Your task to perform on an android device: check battery use Image 0: 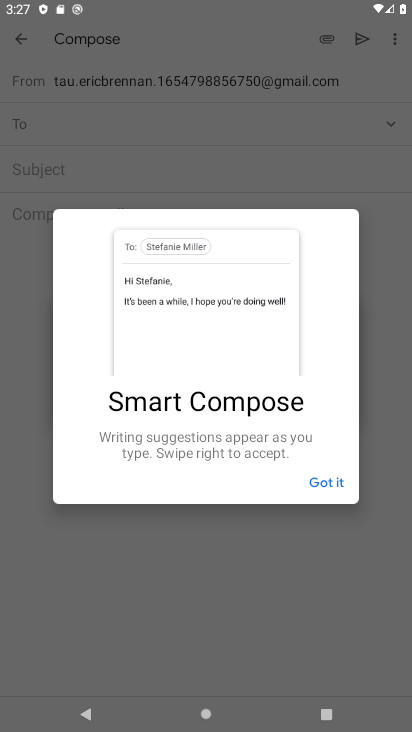
Step 0: press home button
Your task to perform on an android device: check battery use Image 1: 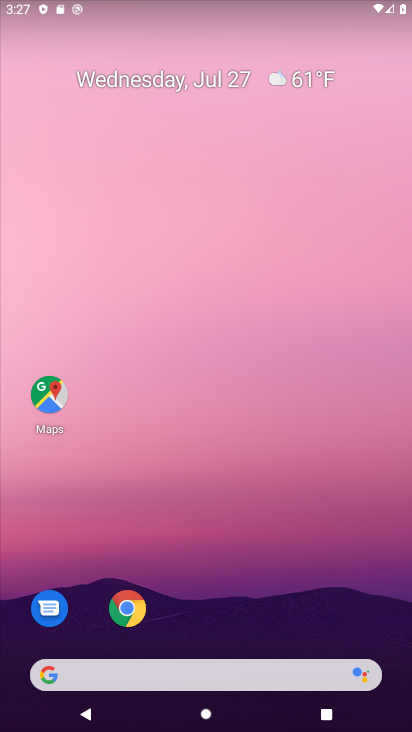
Step 1: drag from (234, 720) to (232, 197)
Your task to perform on an android device: check battery use Image 2: 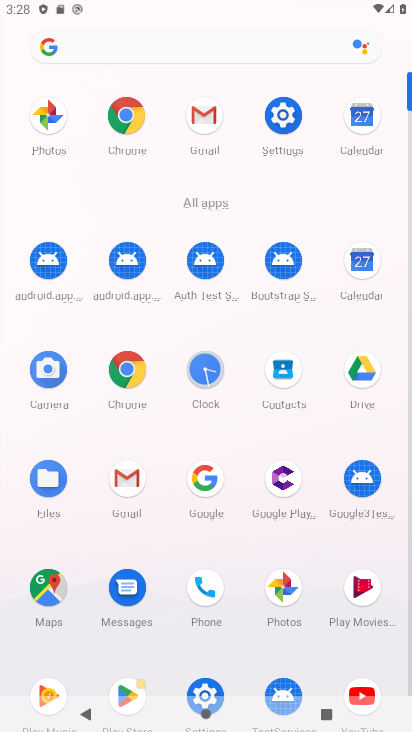
Step 2: click (280, 110)
Your task to perform on an android device: check battery use Image 3: 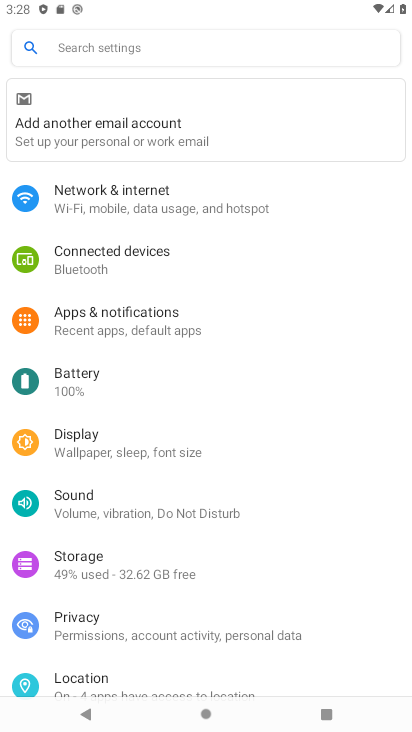
Step 3: click (63, 378)
Your task to perform on an android device: check battery use Image 4: 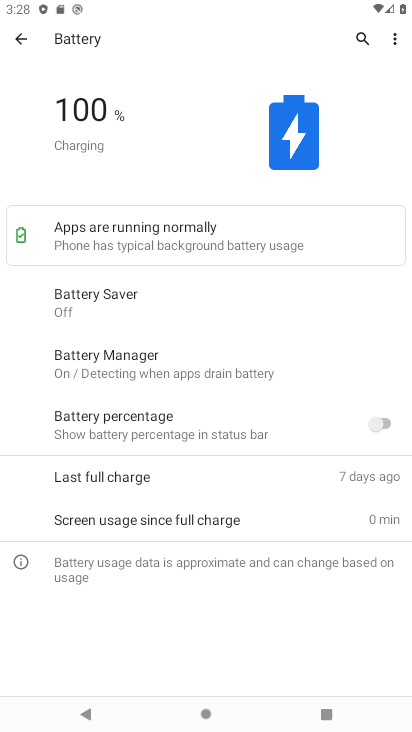
Step 4: click (396, 44)
Your task to perform on an android device: check battery use Image 5: 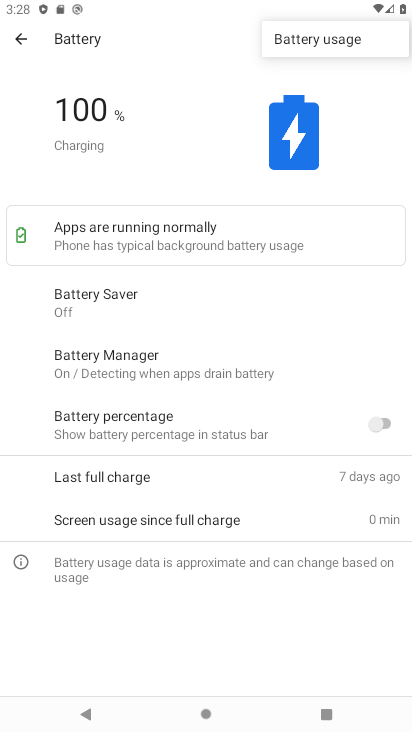
Step 5: click (339, 41)
Your task to perform on an android device: check battery use Image 6: 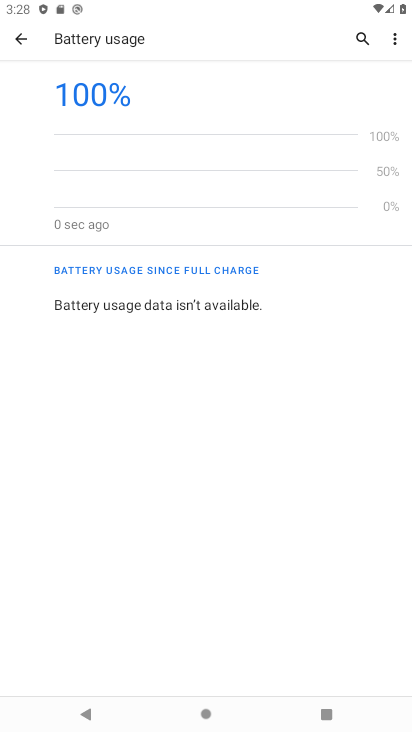
Step 6: task complete